Your task to perform on an android device: Open Yahoo.com Image 0: 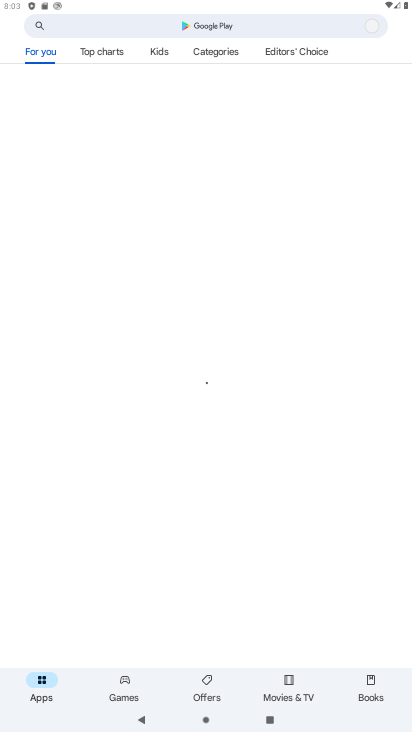
Step 0: press home button
Your task to perform on an android device: Open Yahoo.com Image 1: 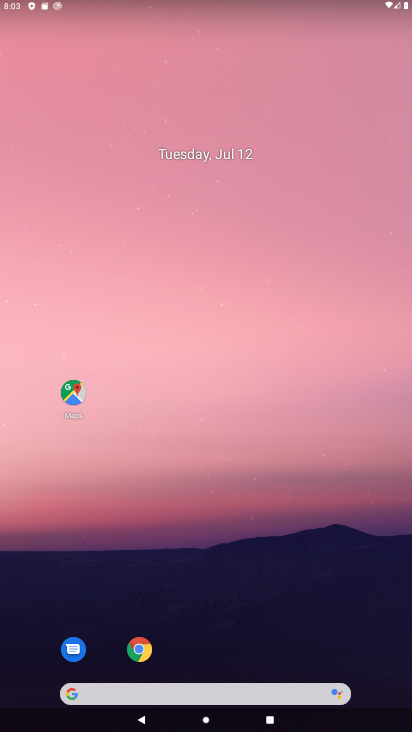
Step 1: click (137, 652)
Your task to perform on an android device: Open Yahoo.com Image 2: 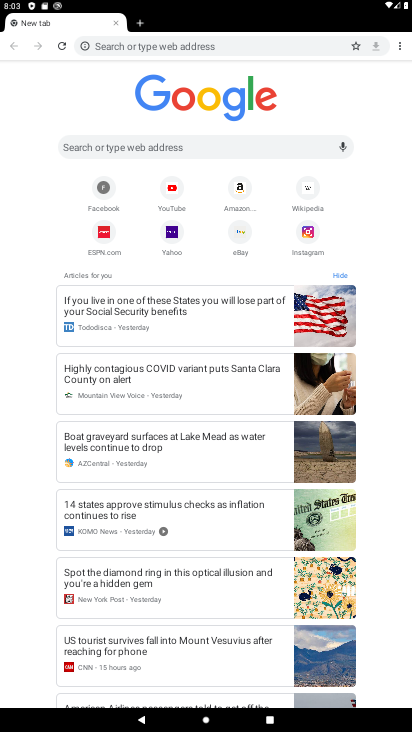
Step 2: click (172, 230)
Your task to perform on an android device: Open Yahoo.com Image 3: 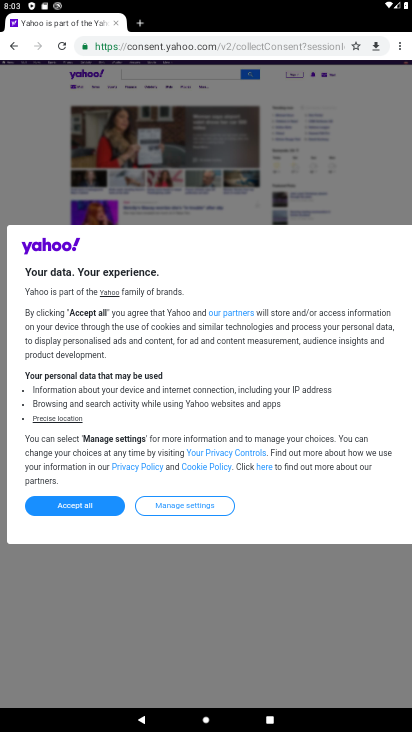
Step 3: task complete